Your task to perform on an android device: toggle sleep mode Image 0: 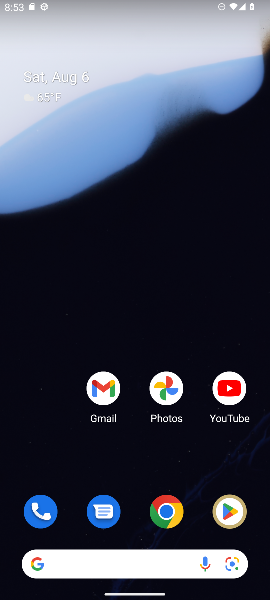
Step 0: press home button
Your task to perform on an android device: toggle sleep mode Image 1: 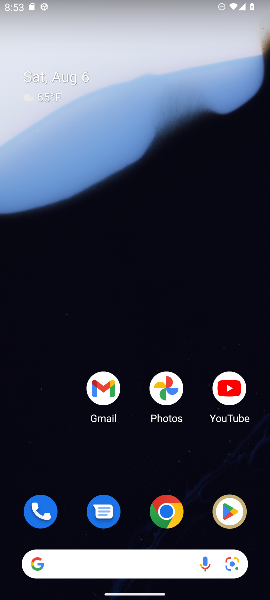
Step 1: drag from (208, 429) to (167, 109)
Your task to perform on an android device: toggle sleep mode Image 2: 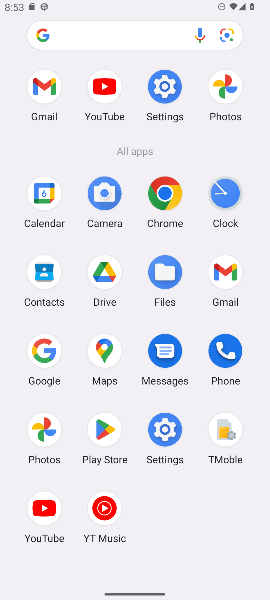
Step 2: click (165, 88)
Your task to perform on an android device: toggle sleep mode Image 3: 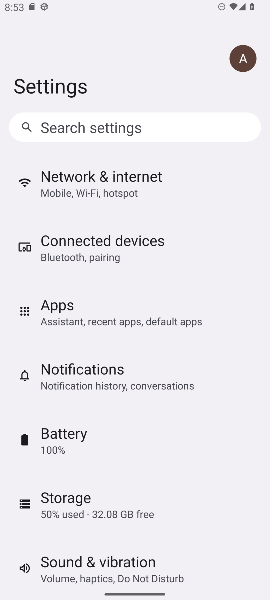
Step 3: drag from (58, 544) to (78, 228)
Your task to perform on an android device: toggle sleep mode Image 4: 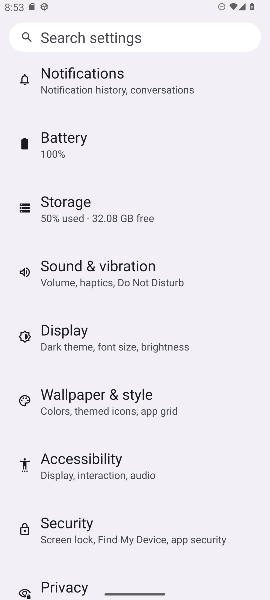
Step 4: click (66, 328)
Your task to perform on an android device: toggle sleep mode Image 5: 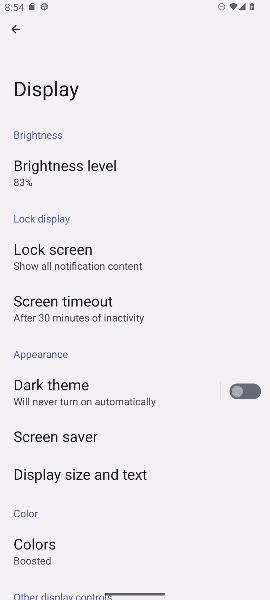
Step 5: task complete